Your task to perform on an android device: Open the phone app and click the voicemail tab. Image 0: 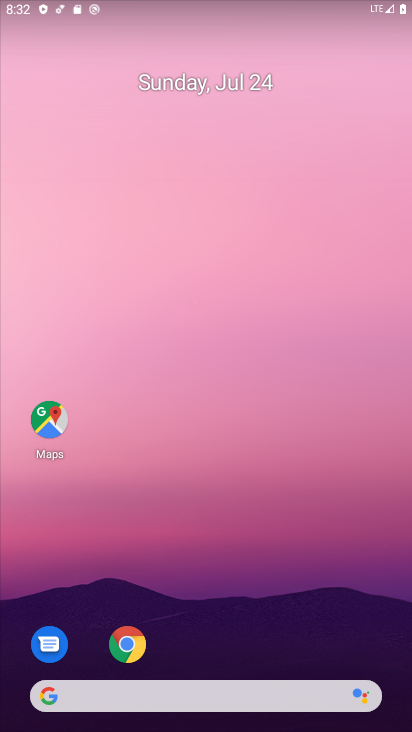
Step 0: drag from (125, 271) to (227, 81)
Your task to perform on an android device: Open the phone app and click the voicemail tab. Image 1: 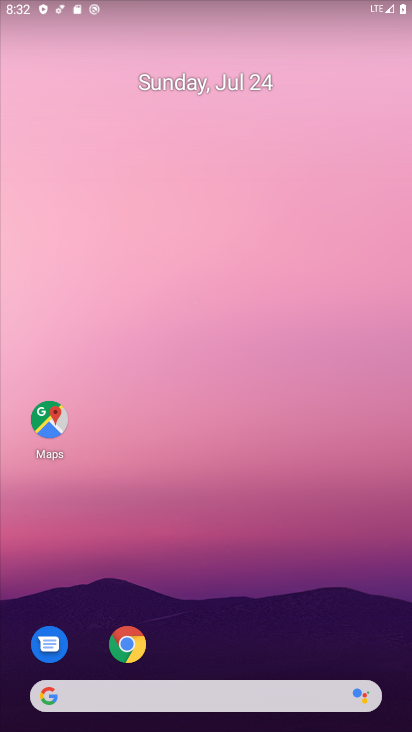
Step 1: drag from (41, 510) to (197, 48)
Your task to perform on an android device: Open the phone app and click the voicemail tab. Image 2: 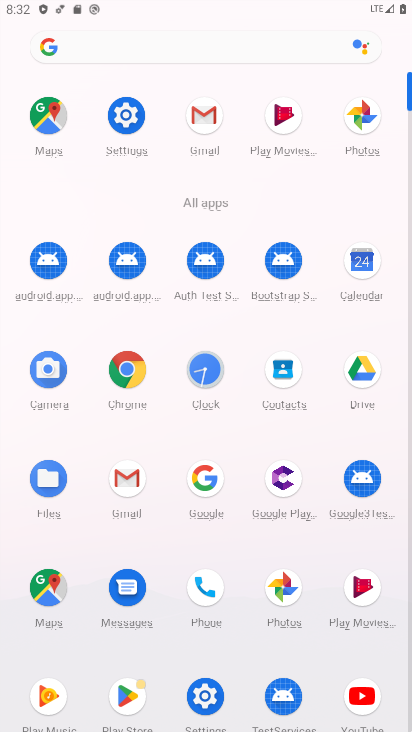
Step 2: click (212, 592)
Your task to perform on an android device: Open the phone app and click the voicemail tab. Image 3: 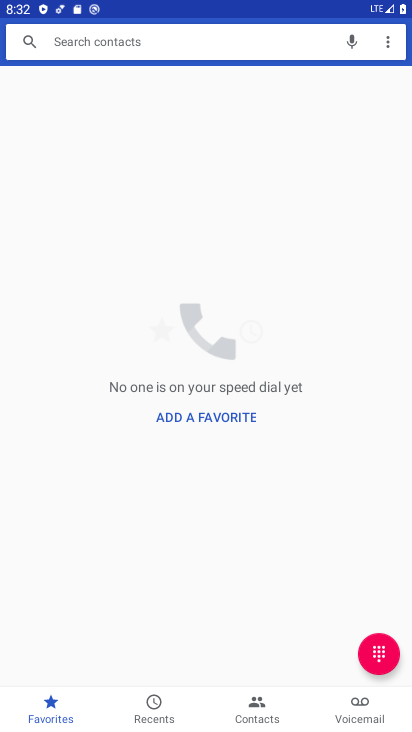
Step 3: click (358, 700)
Your task to perform on an android device: Open the phone app and click the voicemail tab. Image 4: 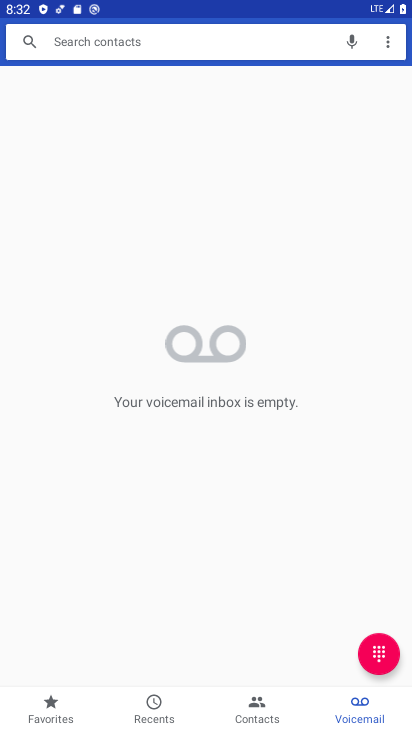
Step 4: task complete